Your task to perform on an android device: Check the news Image 0: 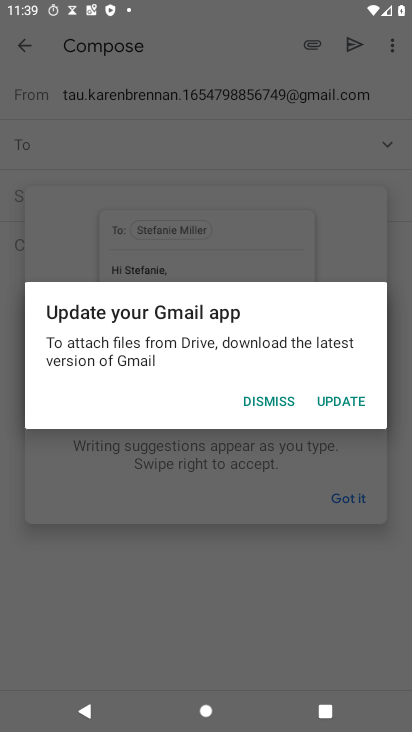
Step 0: press home button
Your task to perform on an android device: Check the news Image 1: 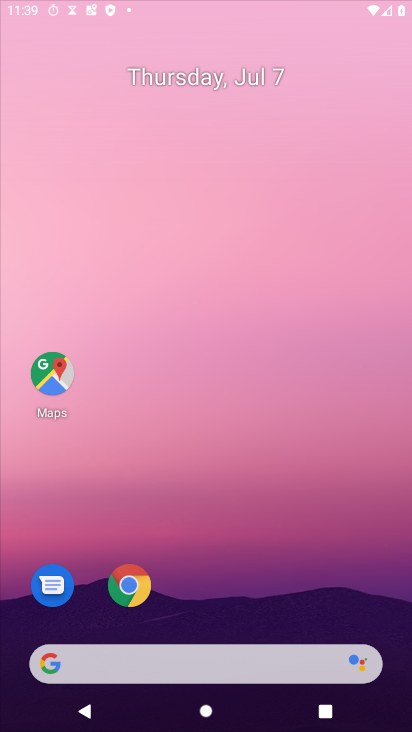
Step 1: drag from (219, 637) to (285, 150)
Your task to perform on an android device: Check the news Image 2: 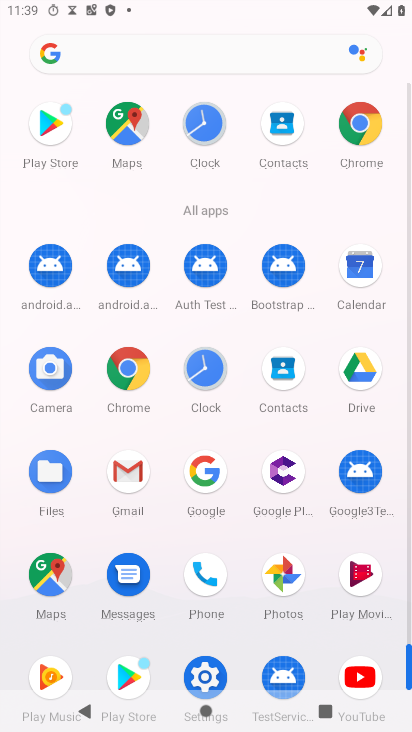
Step 2: drag from (169, 551) to (185, 152)
Your task to perform on an android device: Check the news Image 3: 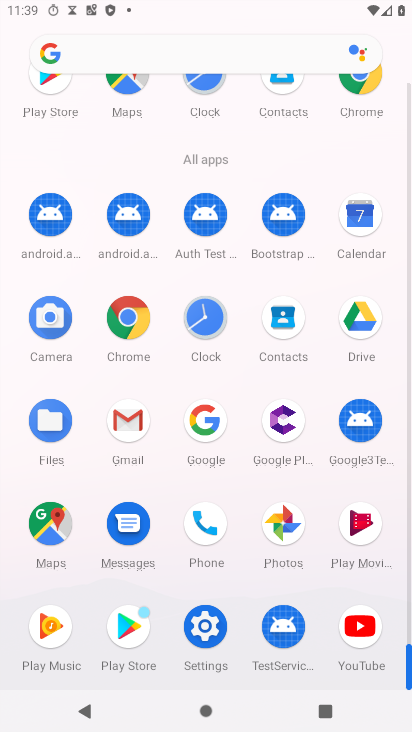
Step 3: click (131, 433)
Your task to perform on an android device: Check the news Image 4: 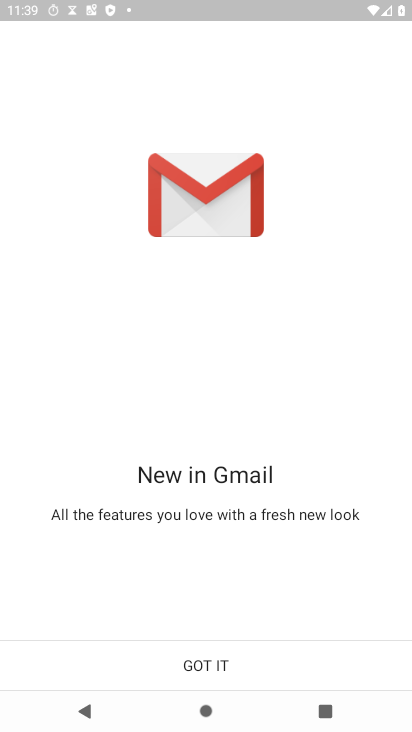
Step 4: click (209, 669)
Your task to perform on an android device: Check the news Image 5: 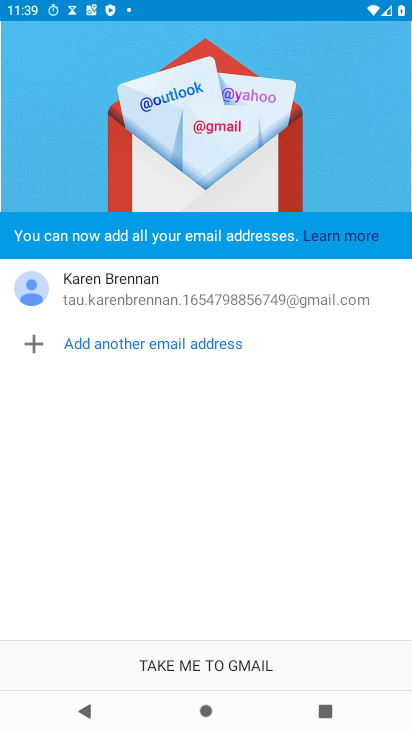
Step 5: click (190, 659)
Your task to perform on an android device: Check the news Image 6: 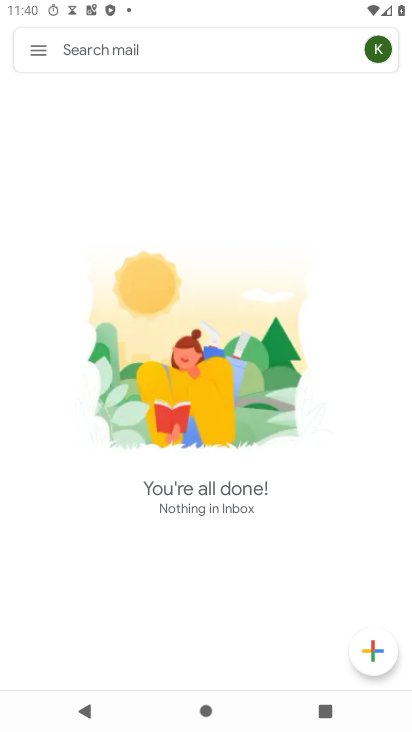
Step 6: drag from (205, 647) to (384, 77)
Your task to perform on an android device: Check the news Image 7: 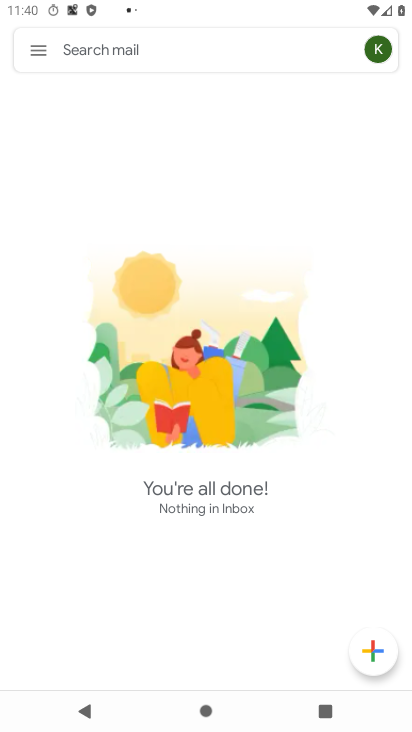
Step 7: drag from (199, 650) to (269, 277)
Your task to perform on an android device: Check the news Image 8: 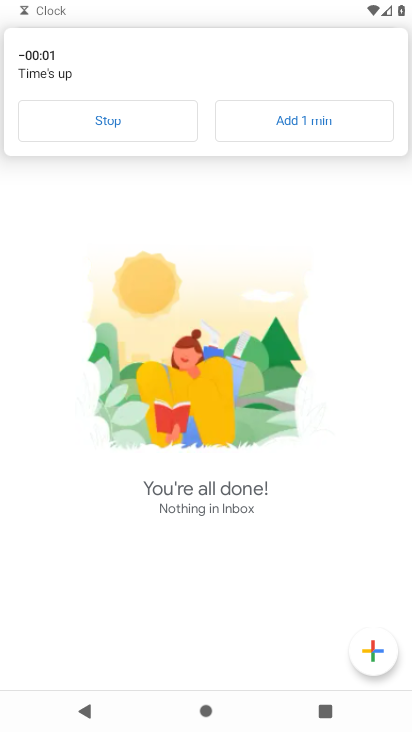
Step 8: drag from (225, 555) to (319, 311)
Your task to perform on an android device: Check the news Image 9: 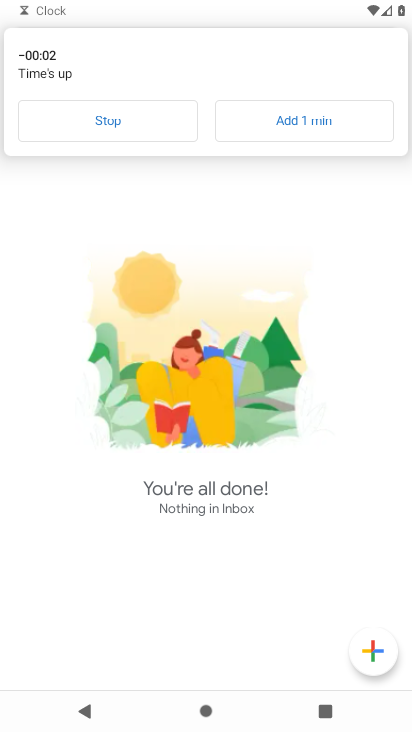
Step 9: click (130, 128)
Your task to perform on an android device: Check the news Image 10: 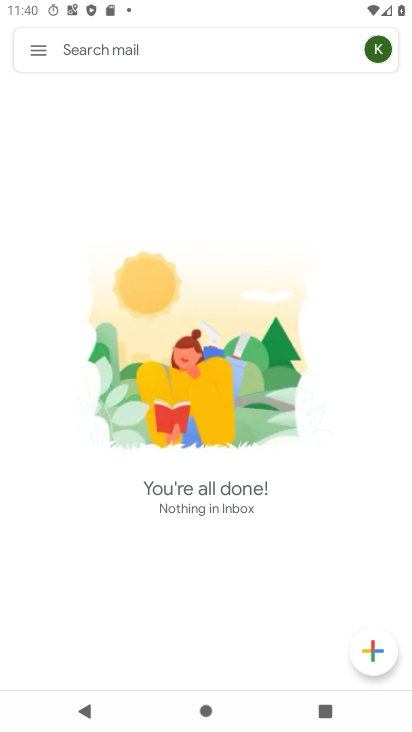
Step 10: click (115, 60)
Your task to perform on an android device: Check the news Image 11: 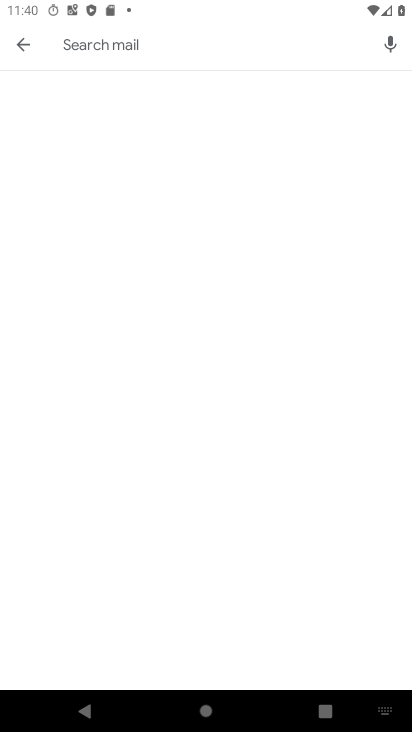
Step 11: click (109, 51)
Your task to perform on an android device: Check the news Image 12: 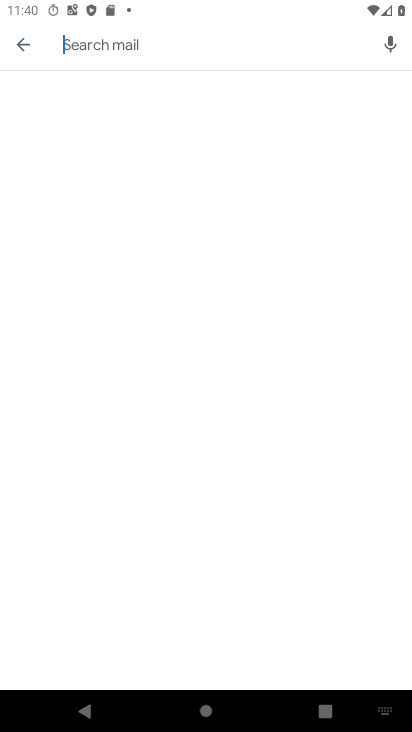
Step 12: click (218, 551)
Your task to perform on an android device: Check the news Image 13: 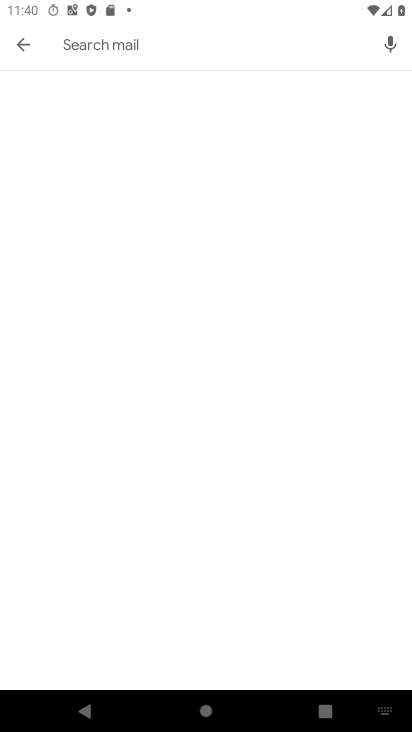
Step 13: click (218, 551)
Your task to perform on an android device: Check the news Image 14: 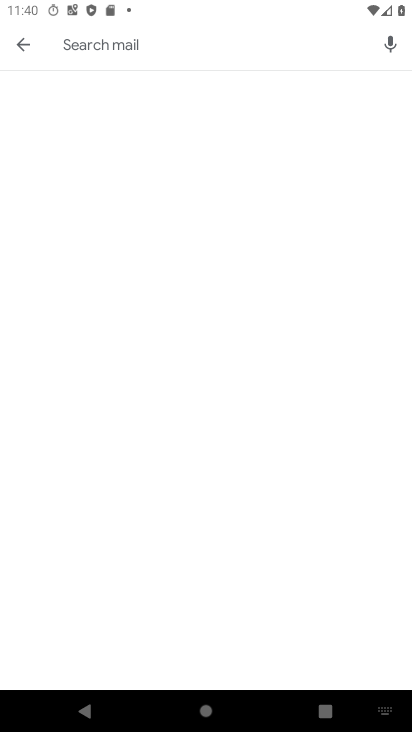
Step 14: click (282, 237)
Your task to perform on an android device: Check the news Image 15: 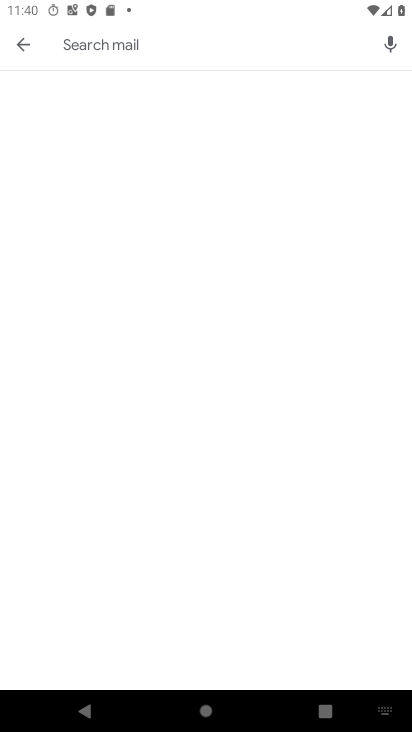
Step 15: click (299, 501)
Your task to perform on an android device: Check the news Image 16: 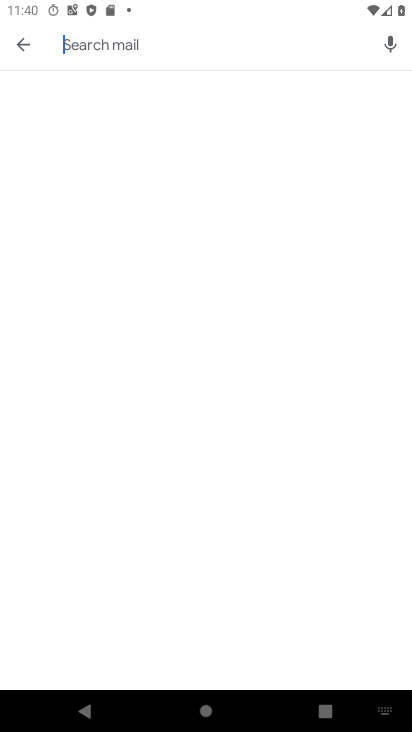
Step 16: click (231, 208)
Your task to perform on an android device: Check the news Image 17: 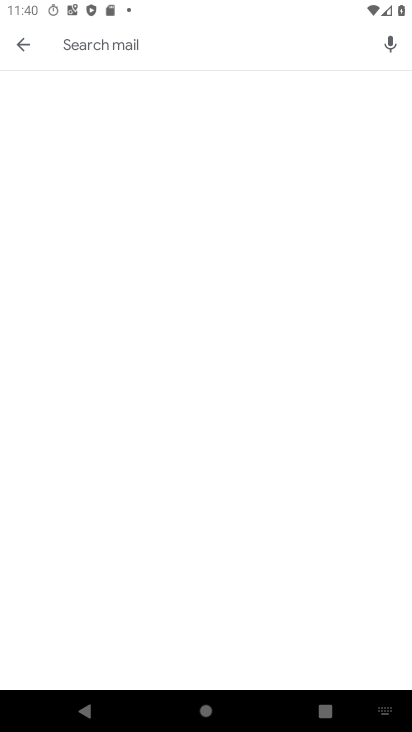
Step 17: click (152, 143)
Your task to perform on an android device: Check the news Image 18: 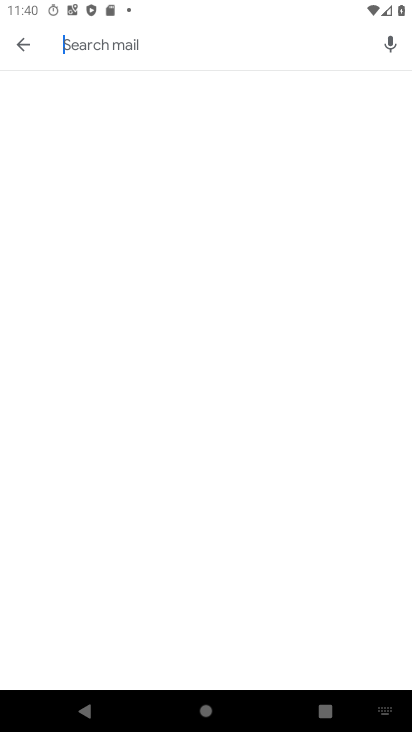
Step 18: click (218, 125)
Your task to perform on an android device: Check the news Image 19: 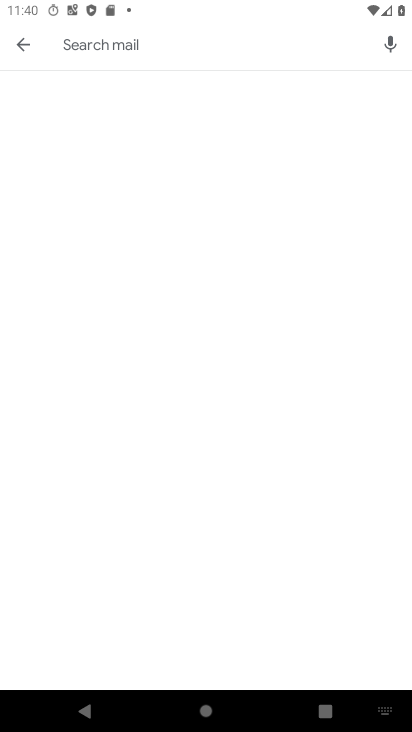
Step 19: click (223, 147)
Your task to perform on an android device: Check the news Image 20: 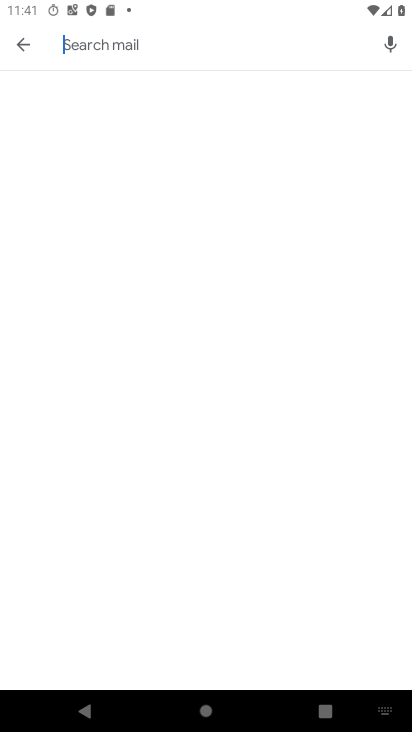
Step 20: drag from (171, 242) to (252, 95)
Your task to perform on an android device: Check the news Image 21: 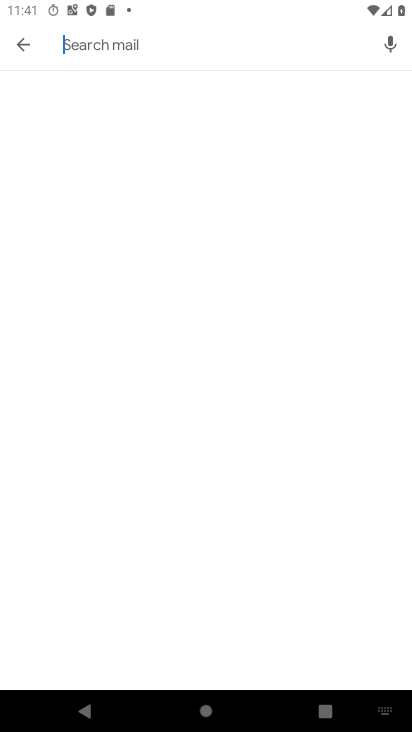
Step 21: click (211, 374)
Your task to perform on an android device: Check the news Image 22: 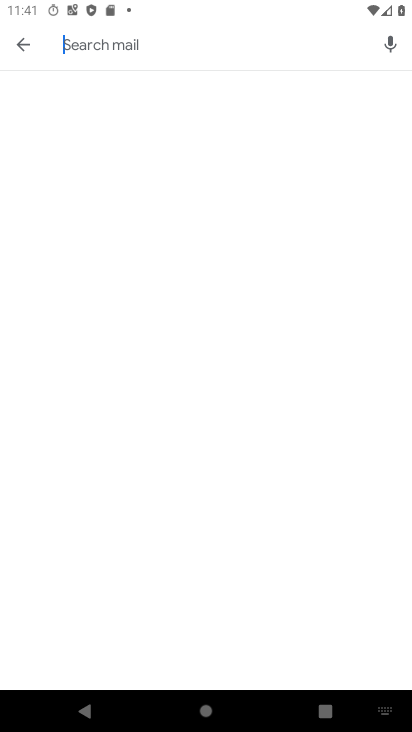
Step 22: drag from (210, 501) to (270, 206)
Your task to perform on an android device: Check the news Image 23: 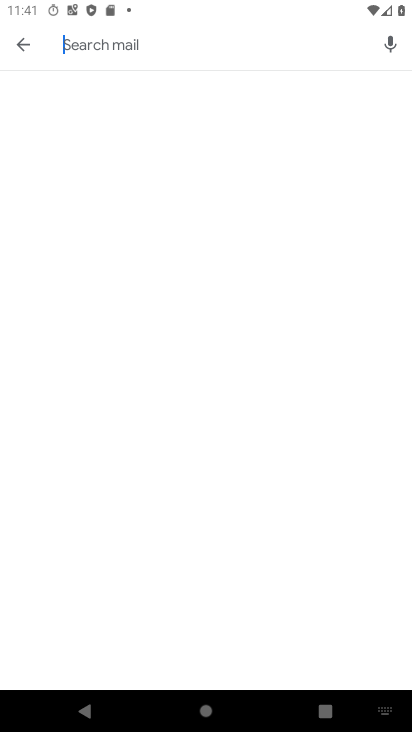
Step 23: drag from (232, 504) to (293, 319)
Your task to perform on an android device: Check the news Image 24: 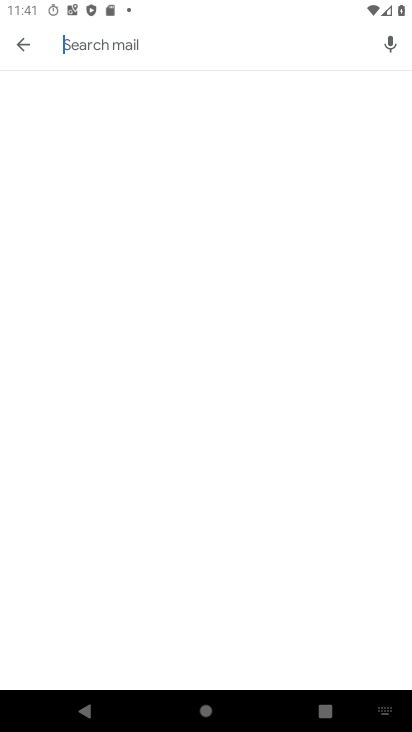
Step 24: drag from (195, 555) to (274, 337)
Your task to perform on an android device: Check the news Image 25: 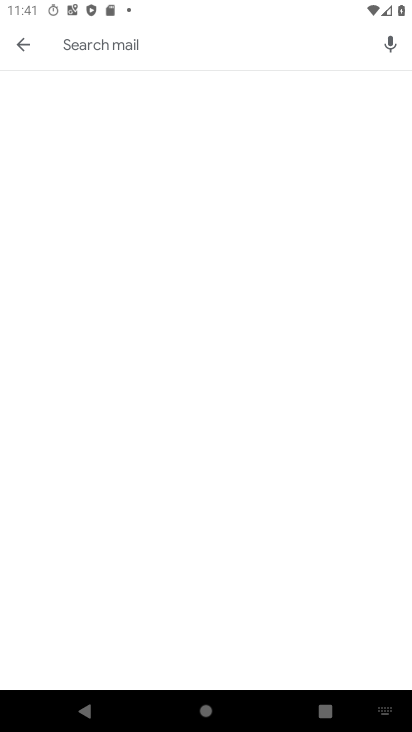
Step 25: drag from (204, 398) to (247, 229)
Your task to perform on an android device: Check the news Image 26: 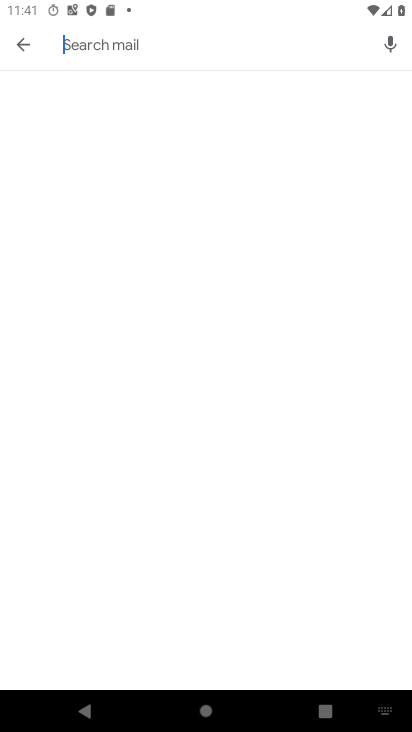
Step 26: click (87, 49)
Your task to perform on an android device: Check the news Image 27: 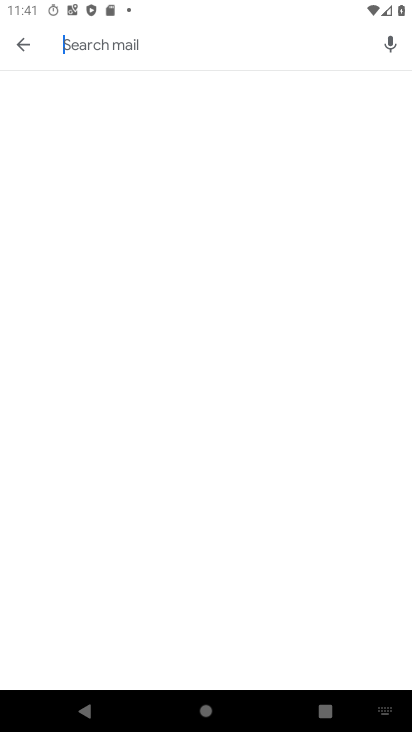
Step 27: click (121, 40)
Your task to perform on an android device: Check the news Image 28: 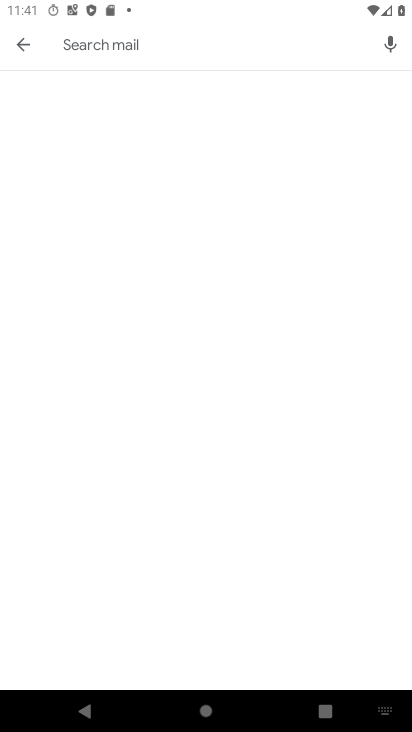
Step 28: click (302, 350)
Your task to perform on an android device: Check the news Image 29: 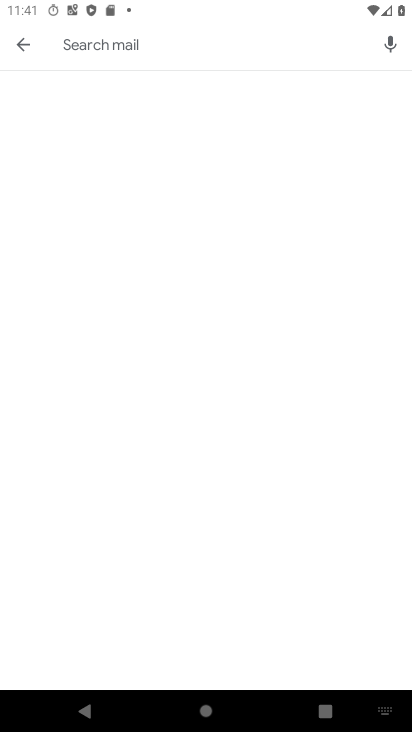
Step 29: click (248, 731)
Your task to perform on an android device: Check the news Image 30: 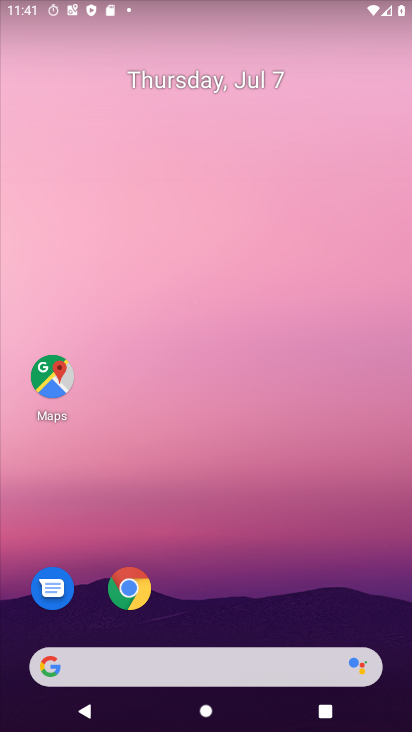
Step 30: drag from (232, 496) to (339, 185)
Your task to perform on an android device: Check the news Image 31: 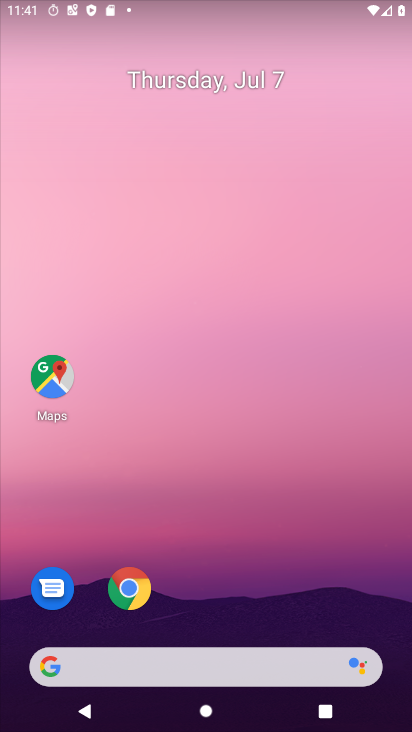
Step 31: drag from (182, 634) to (278, 9)
Your task to perform on an android device: Check the news Image 32: 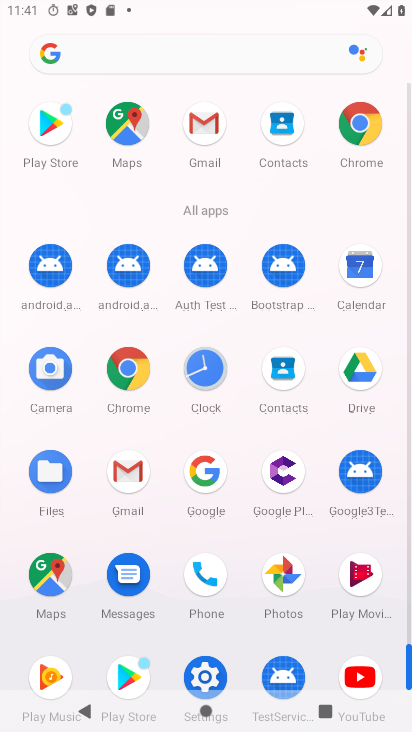
Step 32: click (145, 50)
Your task to perform on an android device: Check the news Image 33: 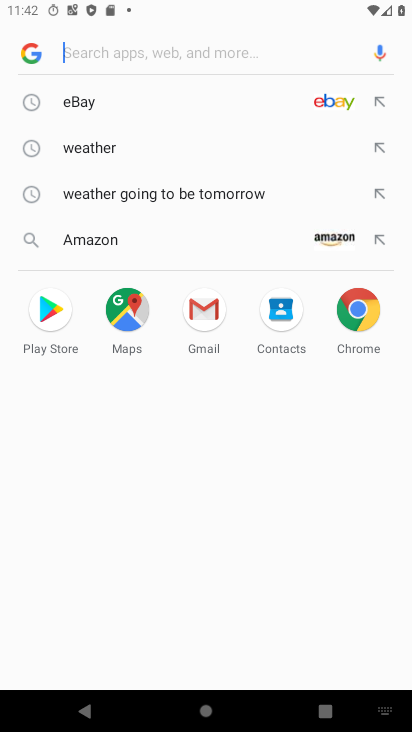
Step 33: type "news"
Your task to perform on an android device: Check the news Image 34: 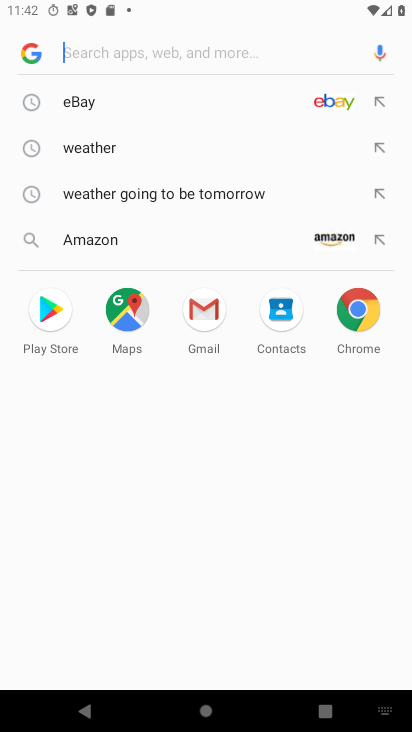
Step 34: click (108, 53)
Your task to perform on an android device: Check the news Image 35: 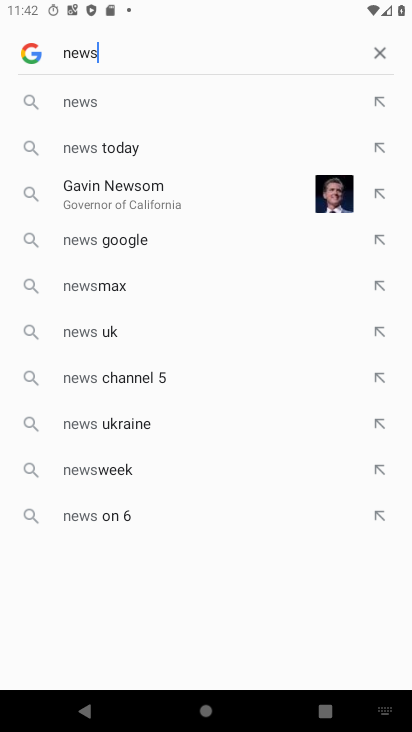
Step 35: click (81, 108)
Your task to perform on an android device: Check the news Image 36: 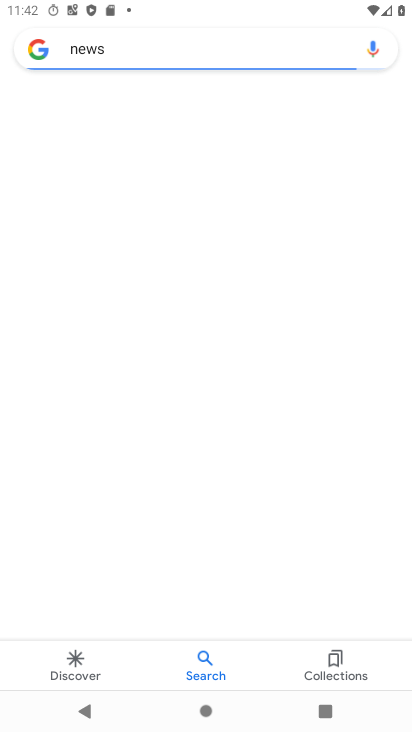
Step 36: task complete